Your task to perform on an android device: star an email in the gmail app Image 0: 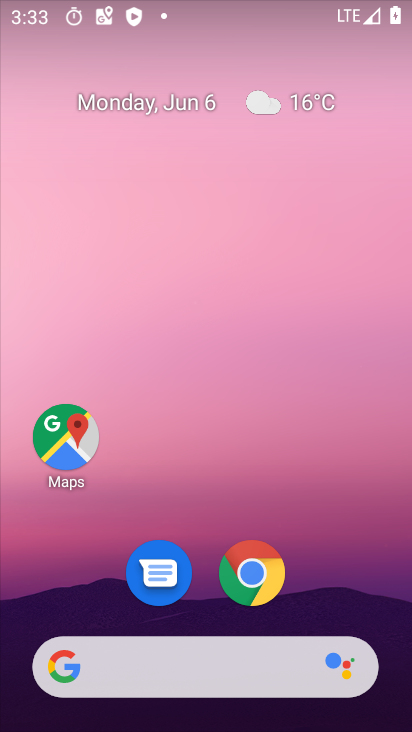
Step 0: drag from (373, 605) to (377, 239)
Your task to perform on an android device: star an email in the gmail app Image 1: 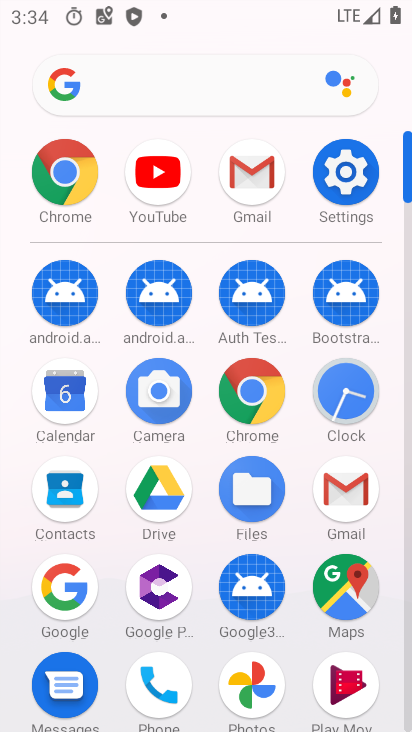
Step 1: click (367, 489)
Your task to perform on an android device: star an email in the gmail app Image 2: 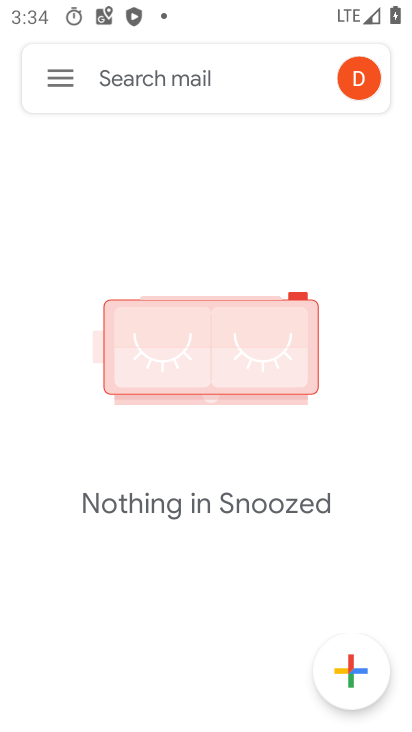
Step 2: click (71, 92)
Your task to perform on an android device: star an email in the gmail app Image 3: 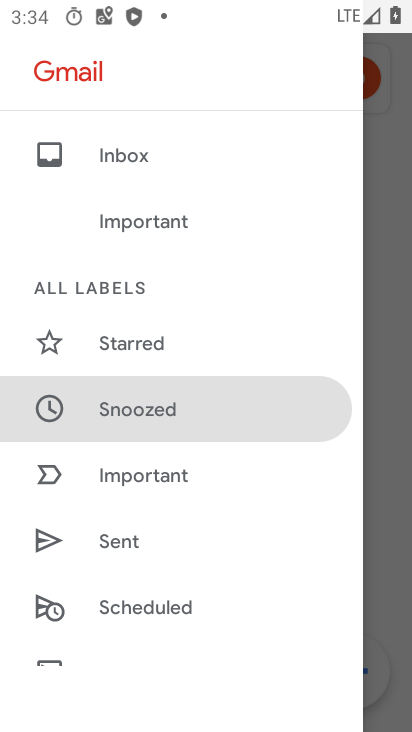
Step 3: drag from (279, 496) to (280, 385)
Your task to perform on an android device: star an email in the gmail app Image 4: 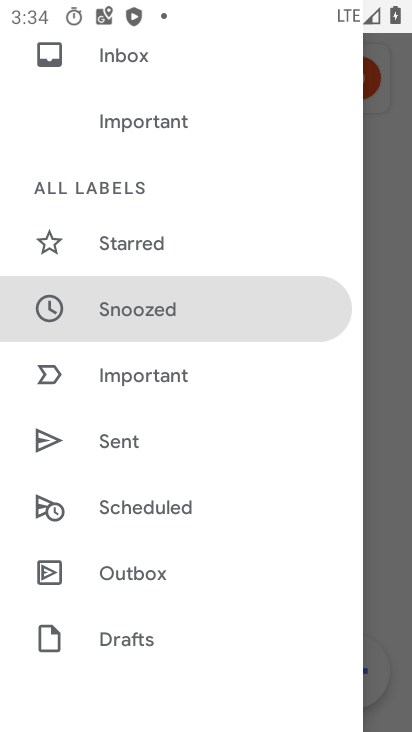
Step 4: drag from (282, 493) to (282, 404)
Your task to perform on an android device: star an email in the gmail app Image 5: 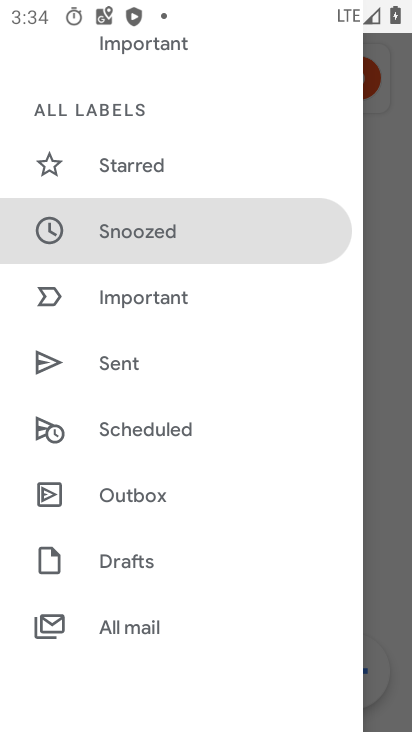
Step 5: drag from (277, 537) to (279, 432)
Your task to perform on an android device: star an email in the gmail app Image 6: 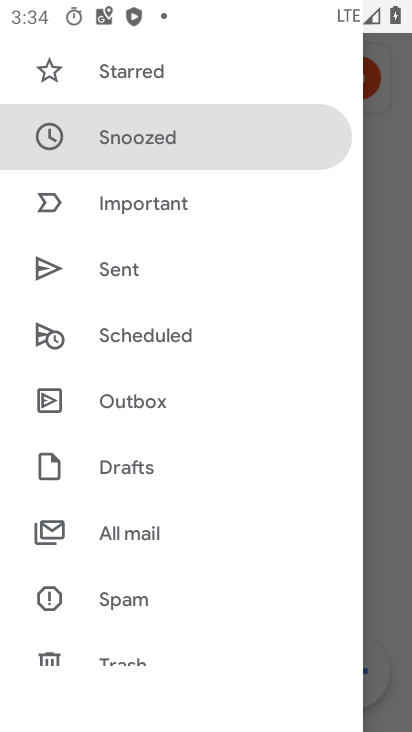
Step 6: drag from (268, 360) to (271, 450)
Your task to perform on an android device: star an email in the gmail app Image 7: 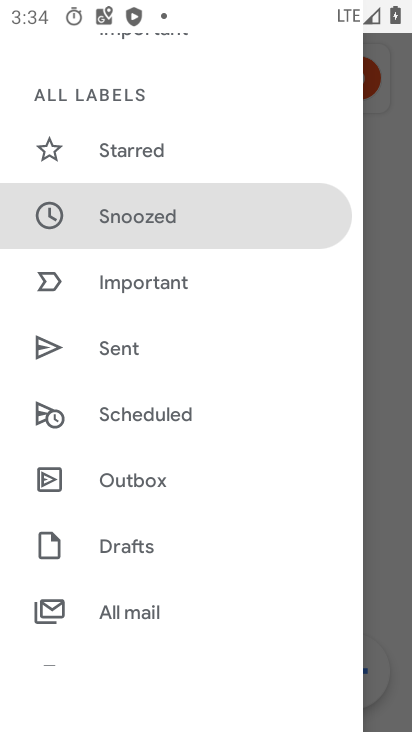
Step 7: drag from (271, 305) to (280, 386)
Your task to perform on an android device: star an email in the gmail app Image 8: 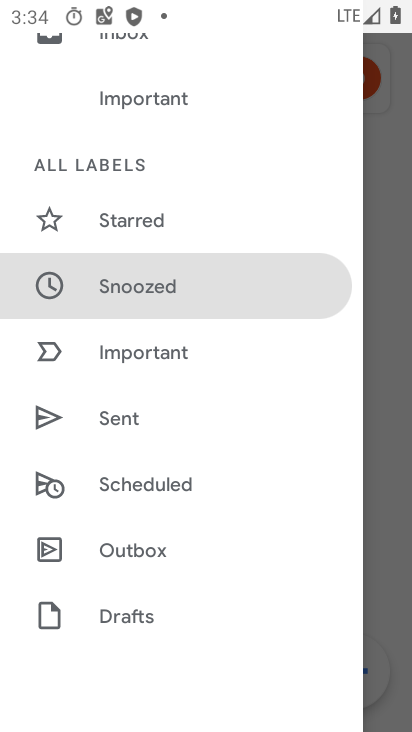
Step 8: drag from (275, 240) to (275, 387)
Your task to perform on an android device: star an email in the gmail app Image 9: 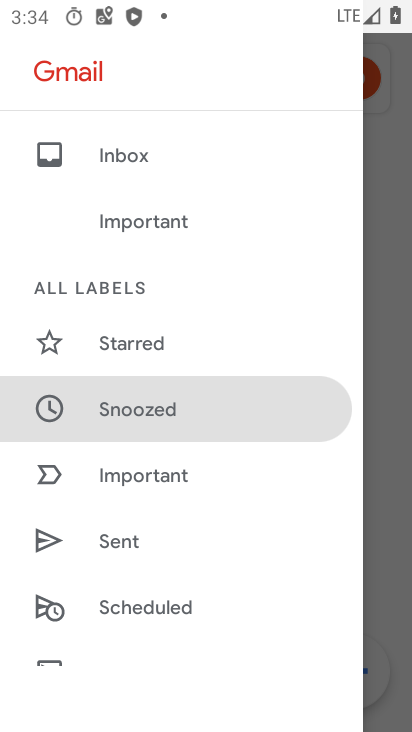
Step 9: click (198, 156)
Your task to perform on an android device: star an email in the gmail app Image 10: 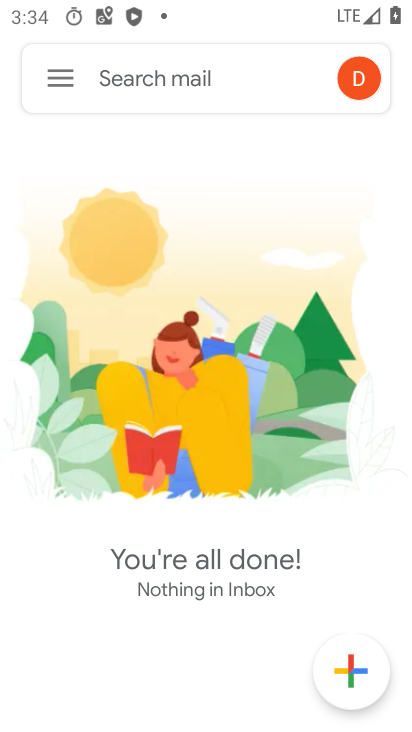
Step 10: task complete